Your task to perform on an android device: Go to ESPN.com Image 0: 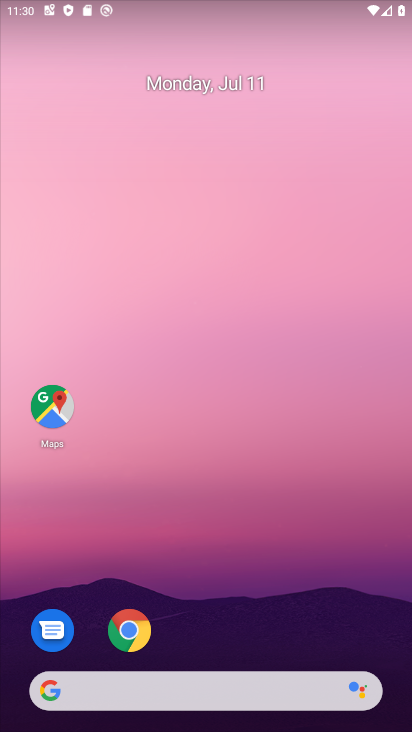
Step 0: drag from (217, 594) to (250, 150)
Your task to perform on an android device: Go to ESPN.com Image 1: 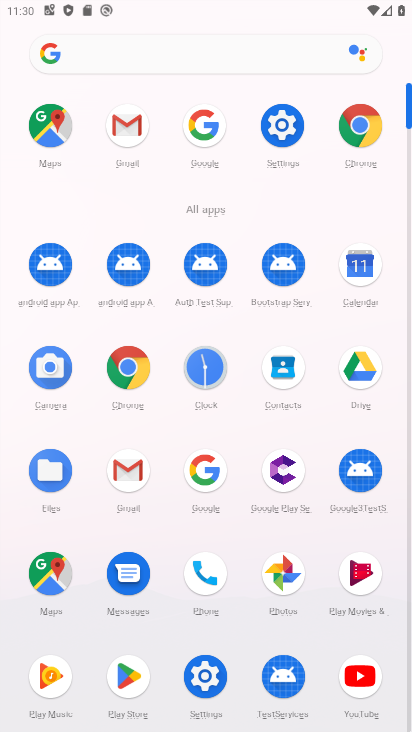
Step 1: click (202, 119)
Your task to perform on an android device: Go to ESPN.com Image 2: 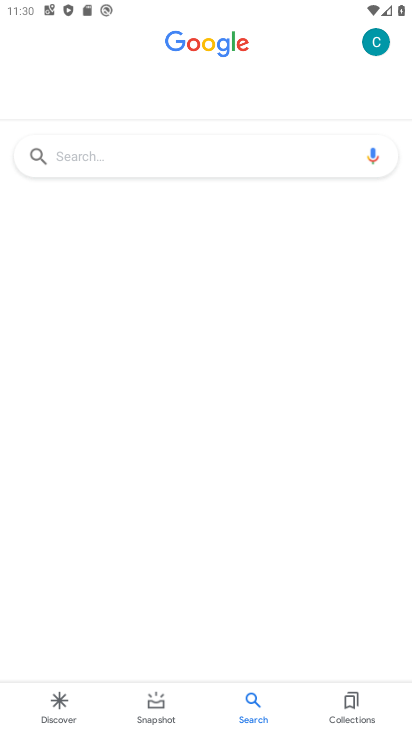
Step 2: click (110, 161)
Your task to perform on an android device: Go to ESPN.com Image 3: 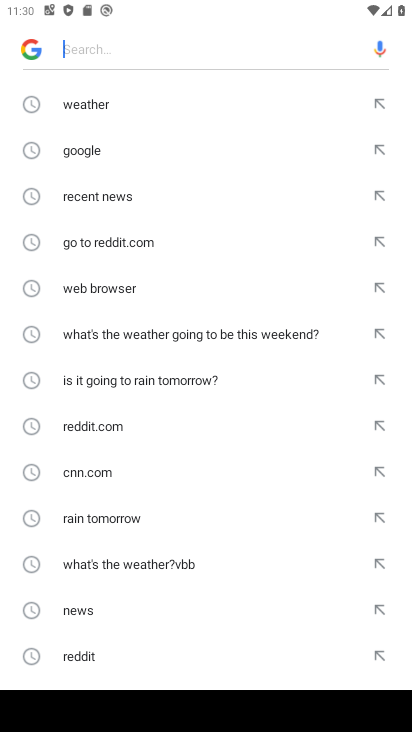
Step 3: type "espn.com"
Your task to perform on an android device: Go to ESPN.com Image 4: 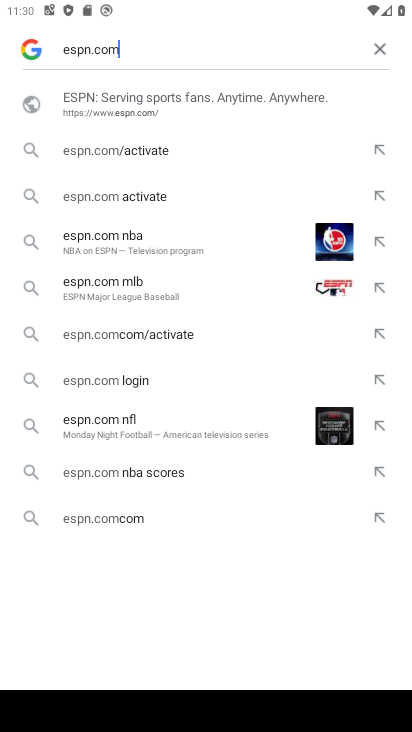
Step 4: click (172, 102)
Your task to perform on an android device: Go to ESPN.com Image 5: 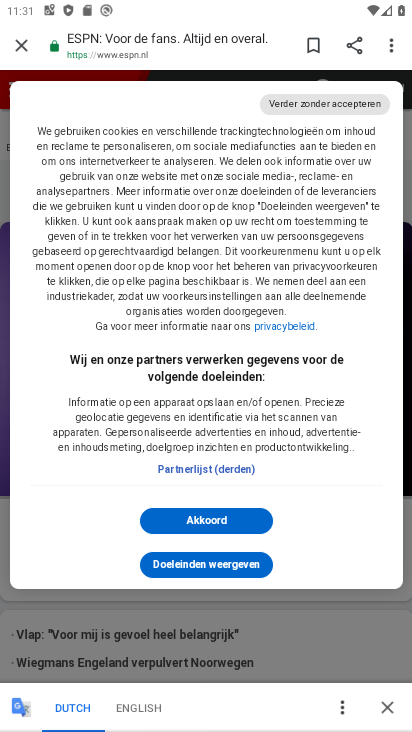
Step 5: task complete